Your task to perform on an android device: Search for dining room chairs on Crate & Barrel Image 0: 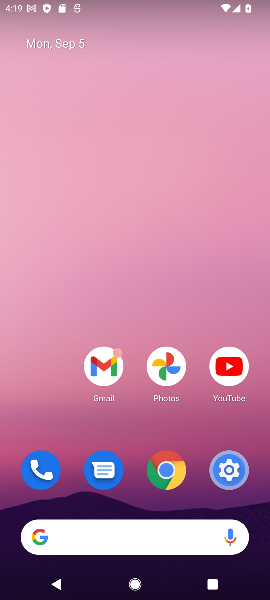
Step 0: click (134, 543)
Your task to perform on an android device: Search for dining room chairs on Crate & Barrel Image 1: 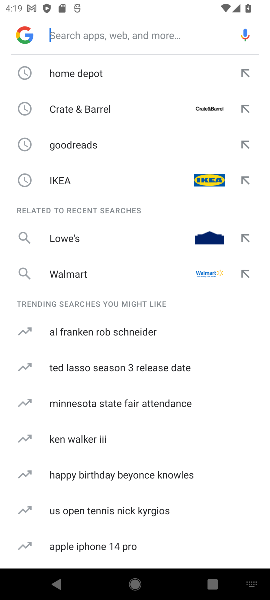
Step 1: click (110, 114)
Your task to perform on an android device: Search for dining room chairs on Crate & Barrel Image 2: 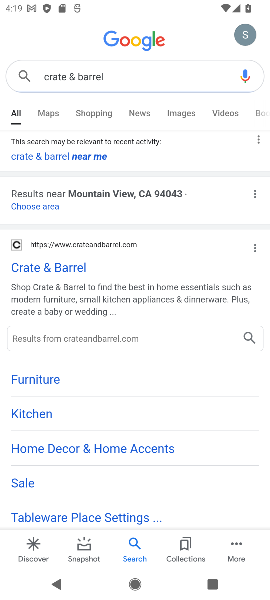
Step 2: click (43, 265)
Your task to perform on an android device: Search for dining room chairs on Crate & Barrel Image 3: 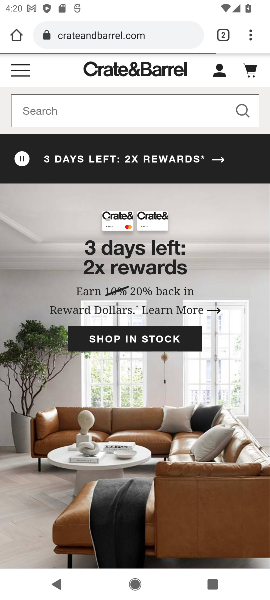
Step 3: click (110, 108)
Your task to perform on an android device: Search for dining room chairs on Crate & Barrel Image 4: 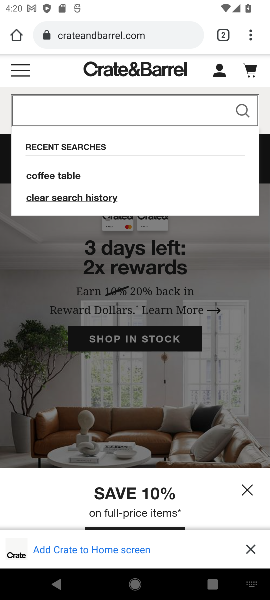
Step 4: type "dining room chairs"
Your task to perform on an android device: Search for dining room chairs on Crate & Barrel Image 5: 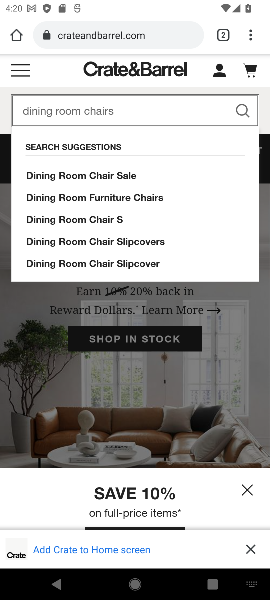
Step 5: press enter
Your task to perform on an android device: Search for dining room chairs on Crate & Barrel Image 6: 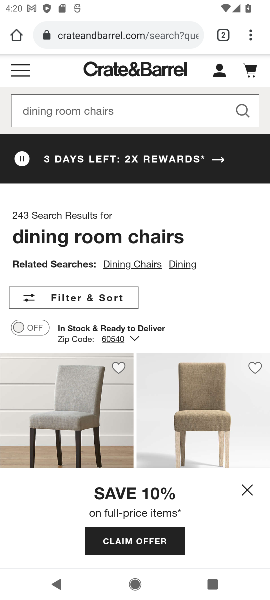
Step 6: drag from (196, 188) to (202, 149)
Your task to perform on an android device: Search for dining room chairs on Crate & Barrel Image 7: 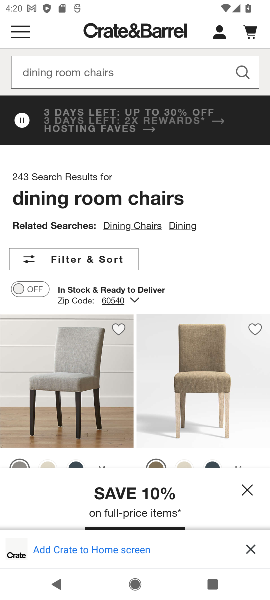
Step 7: drag from (189, 274) to (189, 1)
Your task to perform on an android device: Search for dining room chairs on Crate & Barrel Image 8: 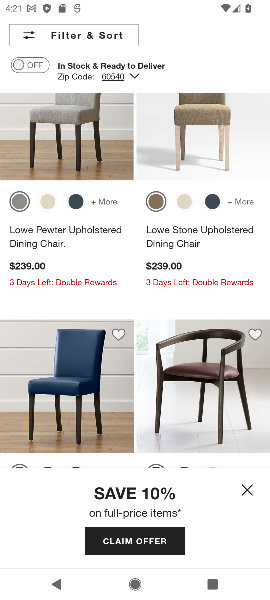
Step 8: click (137, 298)
Your task to perform on an android device: Search for dining room chairs on Crate & Barrel Image 9: 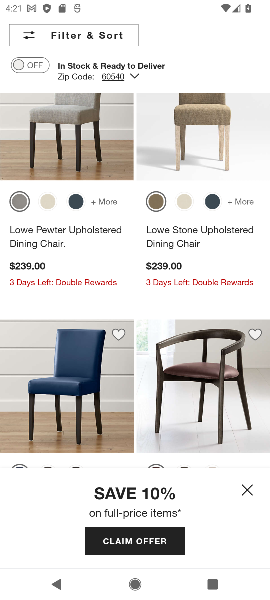
Step 9: drag from (143, 270) to (199, 36)
Your task to perform on an android device: Search for dining room chairs on Crate & Barrel Image 10: 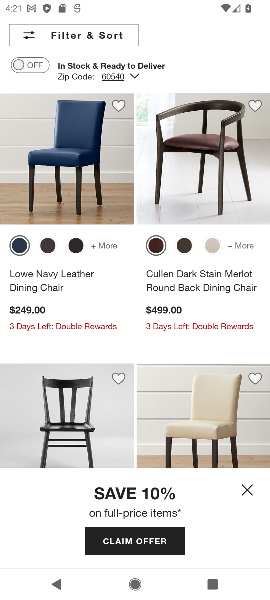
Step 10: drag from (129, 352) to (149, 63)
Your task to perform on an android device: Search for dining room chairs on Crate & Barrel Image 11: 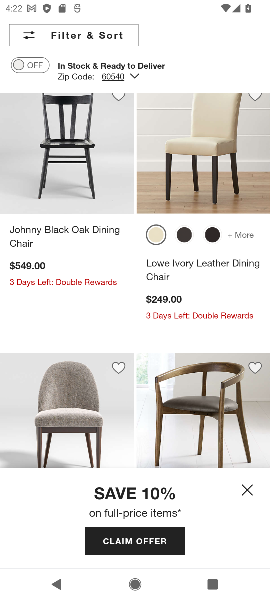
Step 11: drag from (108, 321) to (137, 231)
Your task to perform on an android device: Search for dining room chairs on Crate & Barrel Image 12: 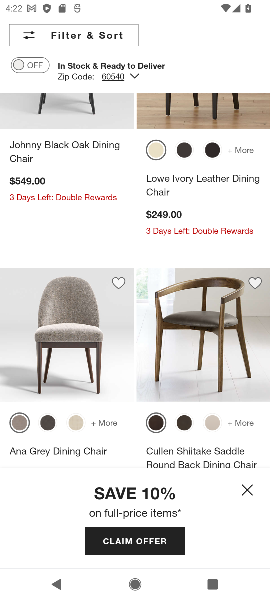
Step 12: task complete
Your task to perform on an android device: Search for dining room chairs on Crate & Barrel Image 13: 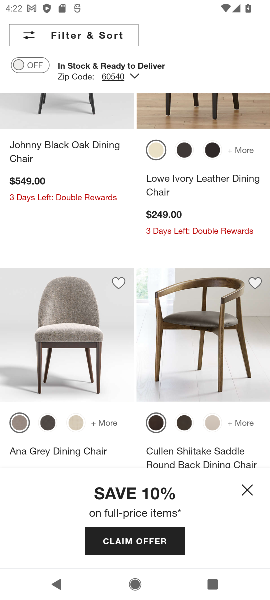
Step 13: task complete